Your task to perform on an android device: Open Google Maps and go to "Timeline" Image 0: 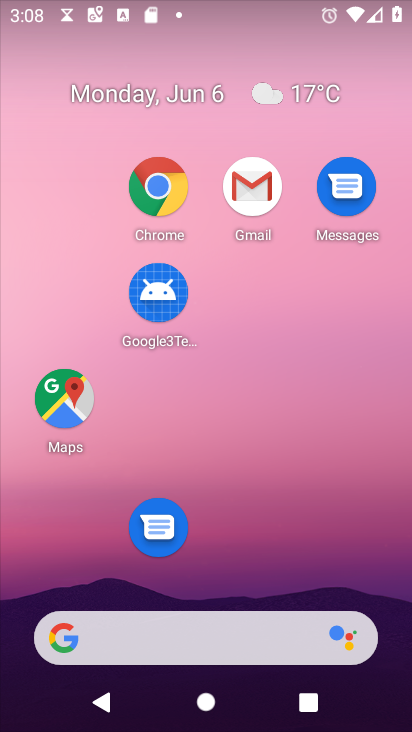
Step 0: click (61, 402)
Your task to perform on an android device: Open Google Maps and go to "Timeline" Image 1: 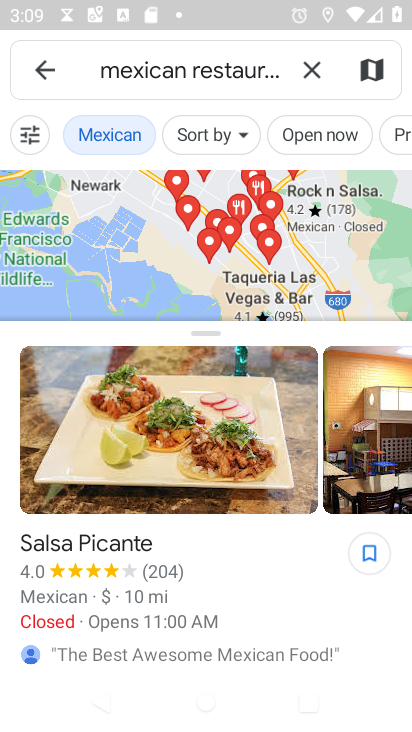
Step 1: click (54, 67)
Your task to perform on an android device: Open Google Maps and go to "Timeline" Image 2: 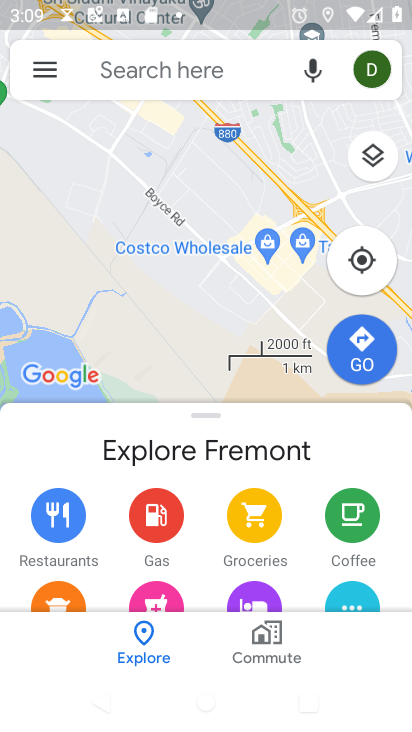
Step 2: click (54, 67)
Your task to perform on an android device: Open Google Maps and go to "Timeline" Image 3: 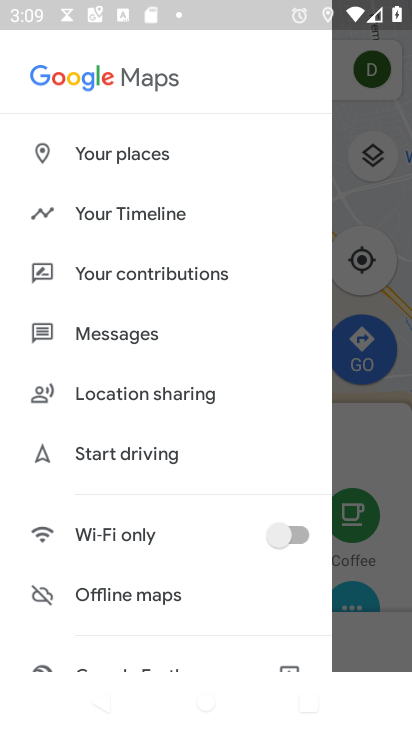
Step 3: click (149, 214)
Your task to perform on an android device: Open Google Maps and go to "Timeline" Image 4: 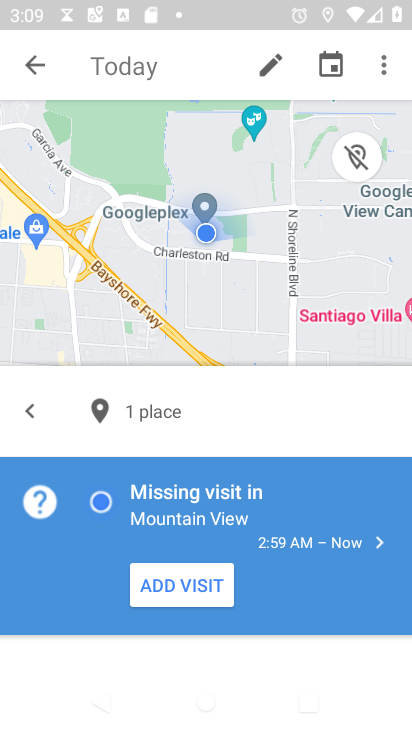
Step 4: task complete